Your task to perform on an android device: Open sound settings Image 0: 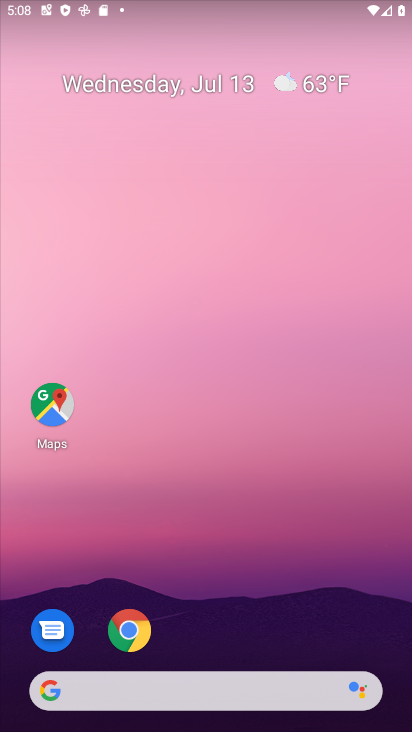
Step 0: press home button
Your task to perform on an android device: Open sound settings Image 1: 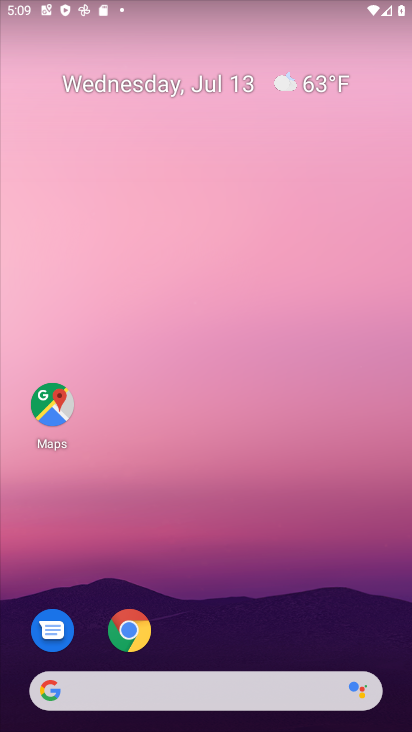
Step 1: drag from (240, 563) to (81, 4)
Your task to perform on an android device: Open sound settings Image 2: 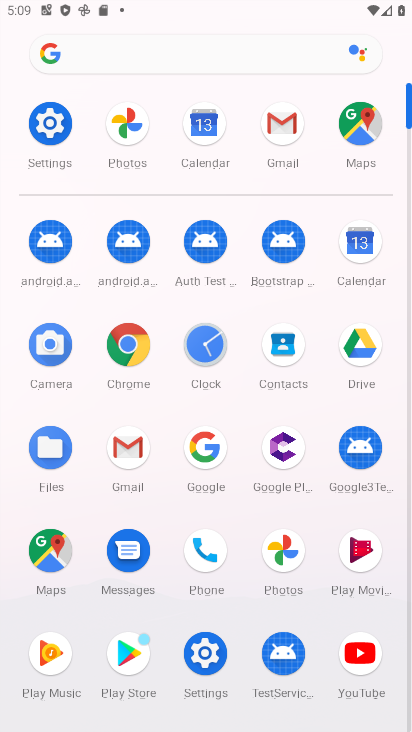
Step 2: click (50, 225)
Your task to perform on an android device: Open sound settings Image 3: 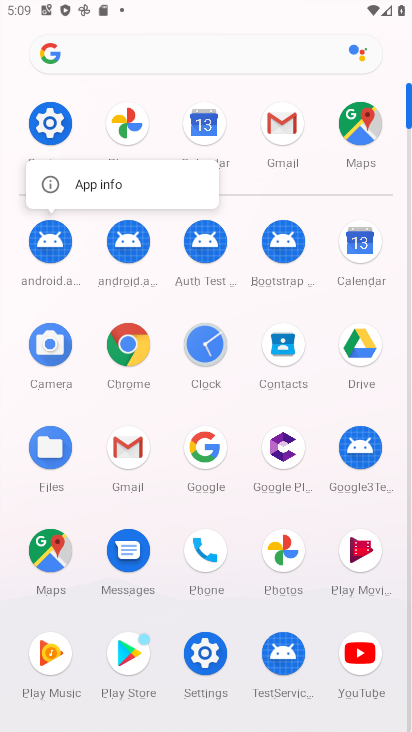
Step 3: click (44, 112)
Your task to perform on an android device: Open sound settings Image 4: 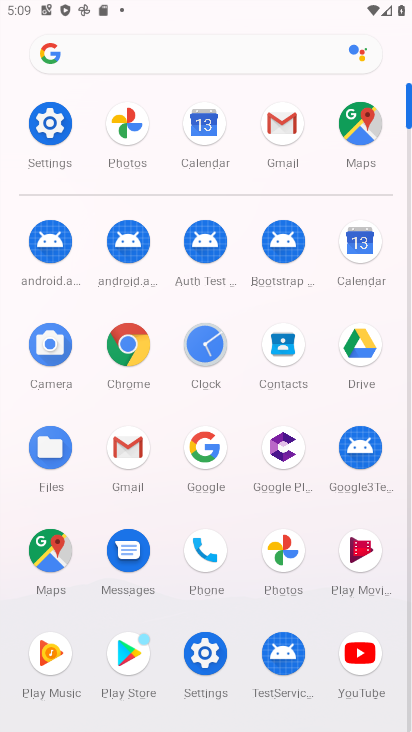
Step 4: click (44, 112)
Your task to perform on an android device: Open sound settings Image 5: 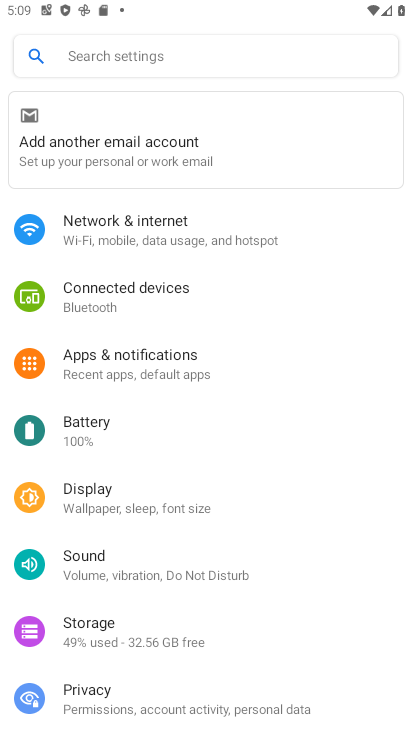
Step 5: click (98, 558)
Your task to perform on an android device: Open sound settings Image 6: 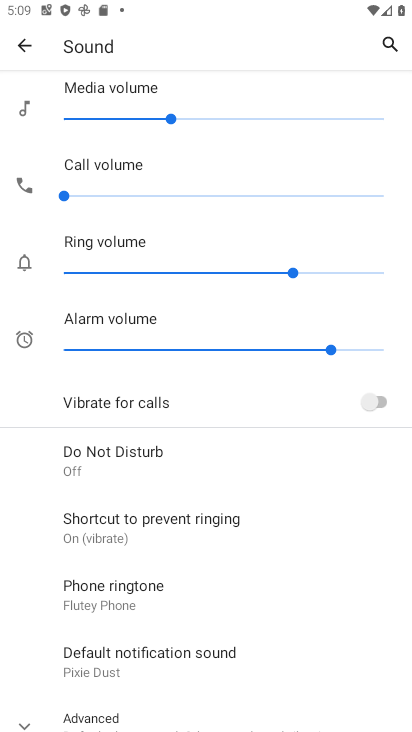
Step 6: task complete